Your task to perform on an android device: Show me the alarms in the clock app Image 0: 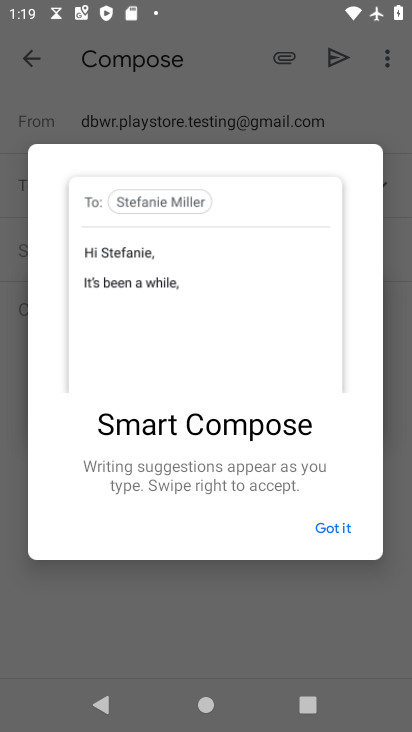
Step 0: press home button
Your task to perform on an android device: Show me the alarms in the clock app Image 1: 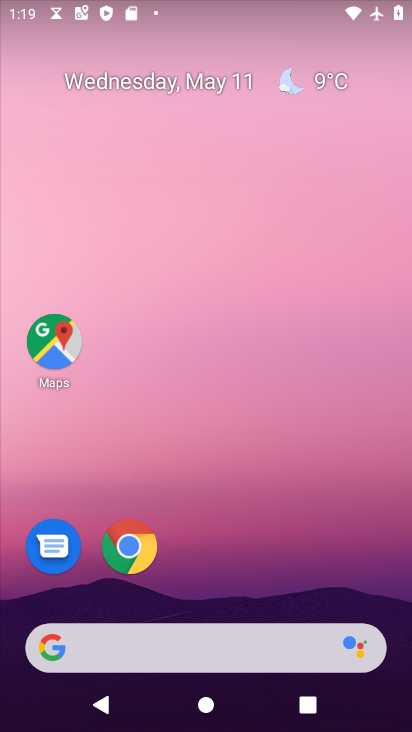
Step 1: drag from (240, 620) to (304, 130)
Your task to perform on an android device: Show me the alarms in the clock app Image 2: 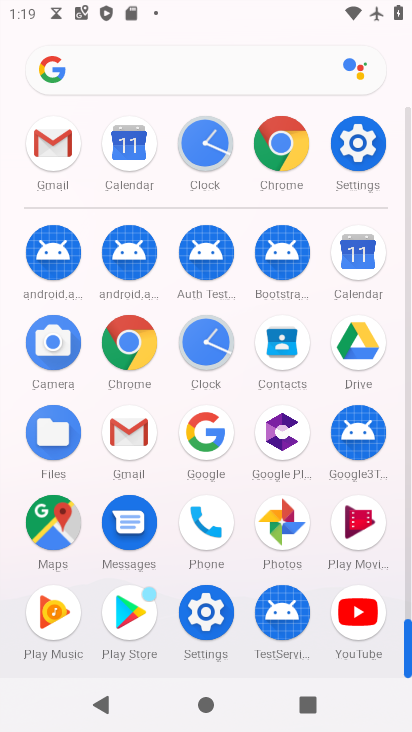
Step 2: click (201, 354)
Your task to perform on an android device: Show me the alarms in the clock app Image 3: 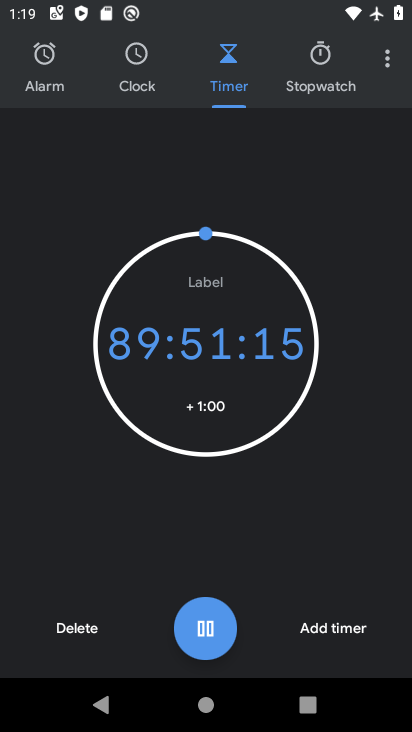
Step 3: click (47, 65)
Your task to perform on an android device: Show me the alarms in the clock app Image 4: 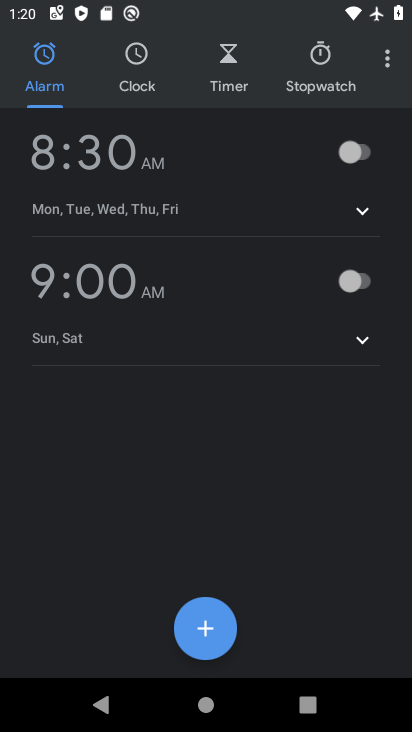
Step 4: task complete